Your task to perform on an android device: Search for pizza restaurants on Maps Image 0: 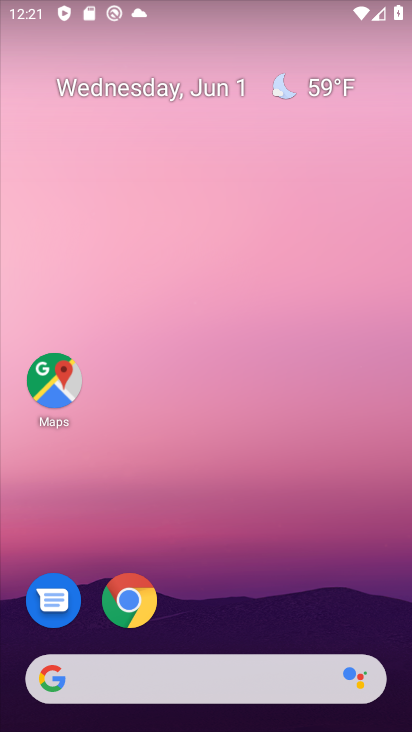
Step 0: click (57, 384)
Your task to perform on an android device: Search for pizza restaurants on Maps Image 1: 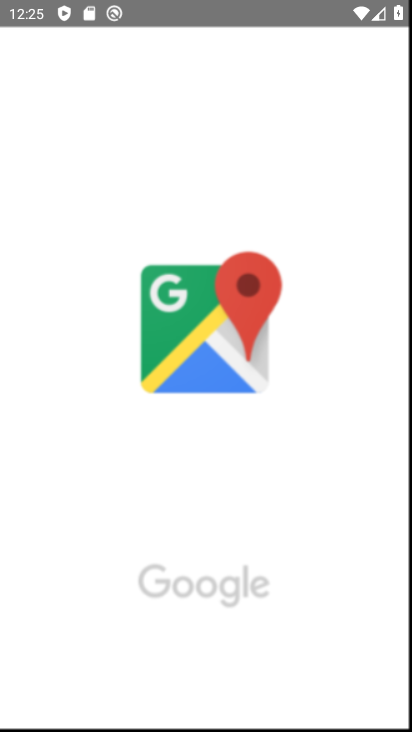
Step 1: task complete